Your task to perform on an android device: Open Youtube and go to "Your channel" Image 0: 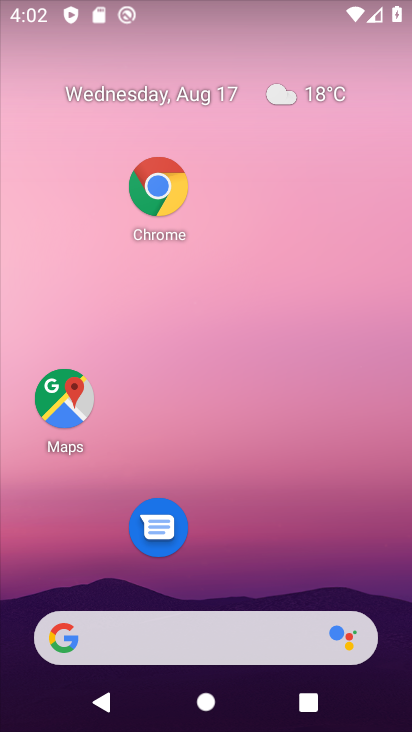
Step 0: drag from (208, 605) to (212, 251)
Your task to perform on an android device: Open Youtube and go to "Your channel" Image 1: 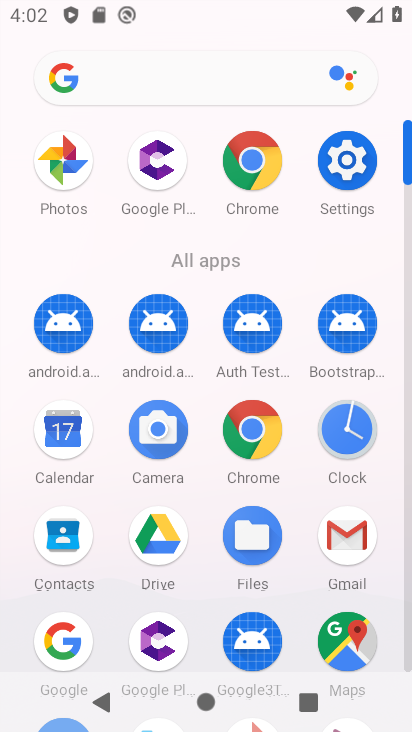
Step 1: drag from (201, 657) to (186, 303)
Your task to perform on an android device: Open Youtube and go to "Your channel" Image 2: 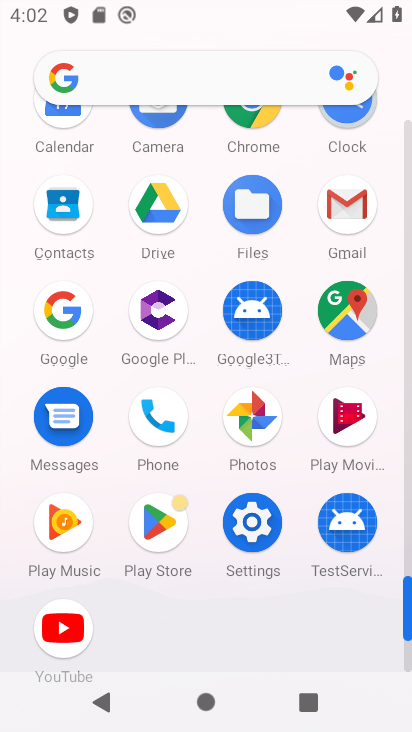
Step 2: click (67, 632)
Your task to perform on an android device: Open Youtube and go to "Your channel" Image 3: 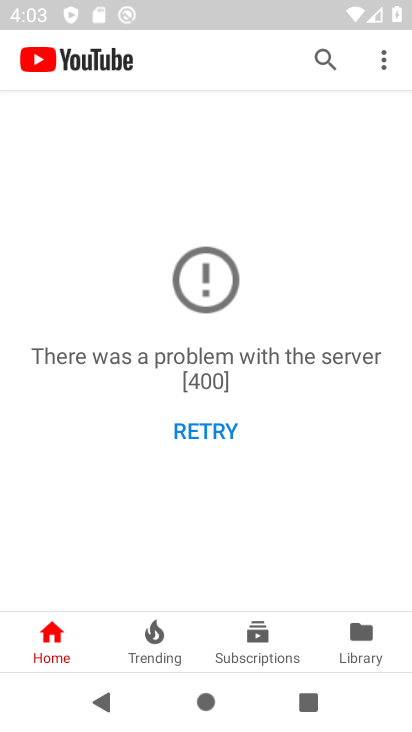
Step 3: task complete